Your task to perform on an android device: toggle pop-ups in chrome Image 0: 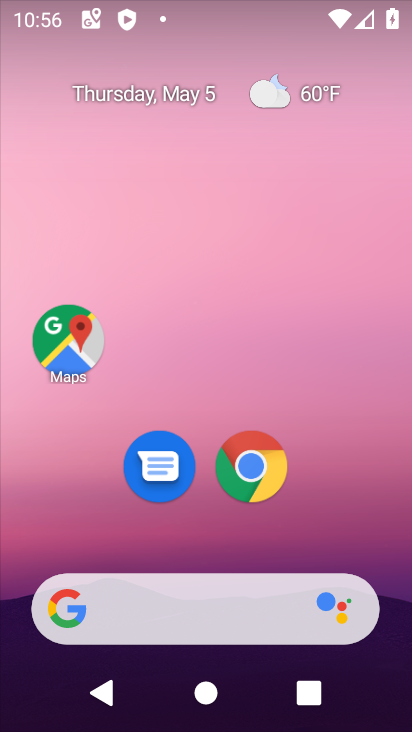
Step 0: click (252, 472)
Your task to perform on an android device: toggle pop-ups in chrome Image 1: 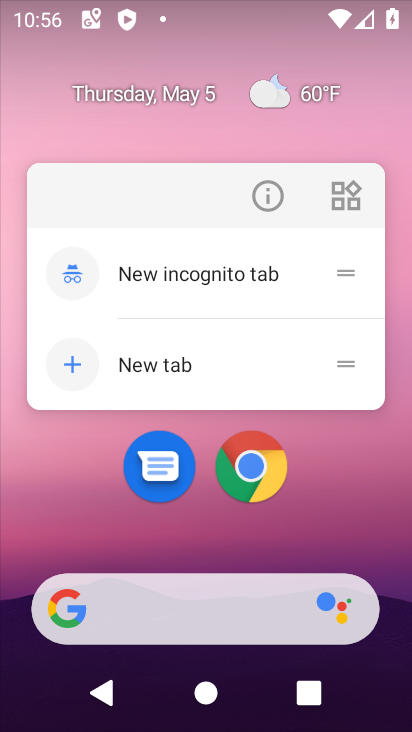
Step 1: click (252, 472)
Your task to perform on an android device: toggle pop-ups in chrome Image 2: 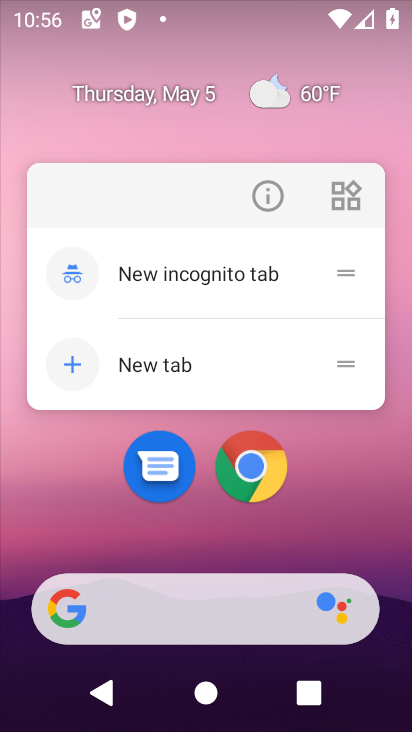
Step 2: click (261, 479)
Your task to perform on an android device: toggle pop-ups in chrome Image 3: 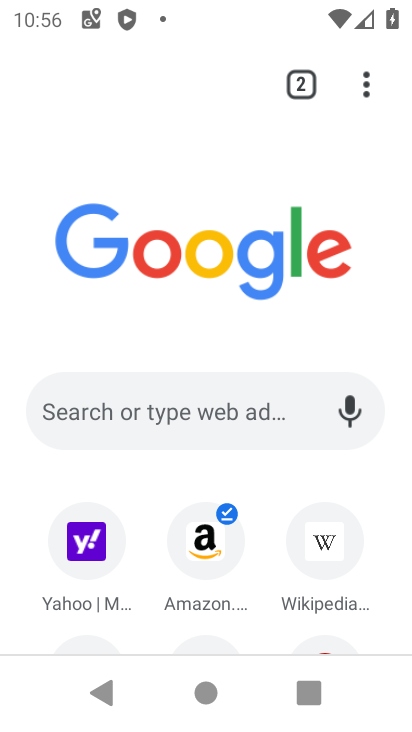
Step 3: click (365, 87)
Your task to perform on an android device: toggle pop-ups in chrome Image 4: 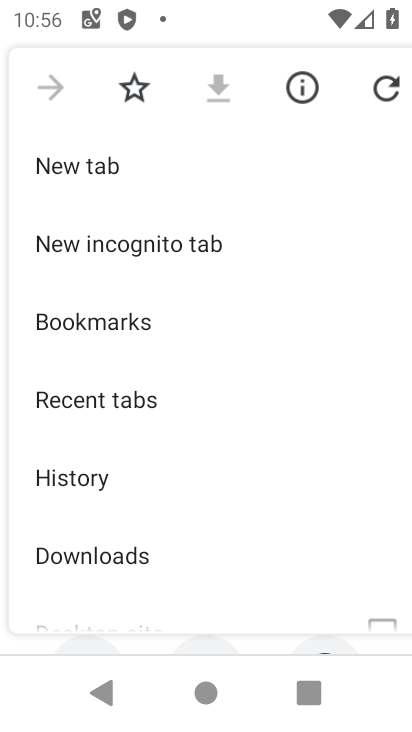
Step 4: drag from (121, 604) to (102, 341)
Your task to perform on an android device: toggle pop-ups in chrome Image 5: 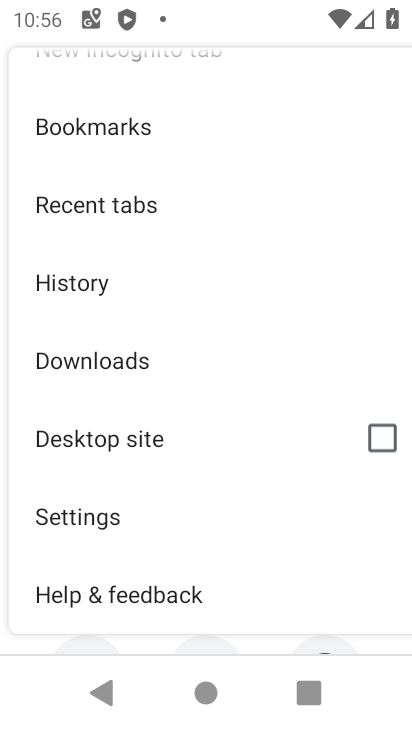
Step 5: click (108, 527)
Your task to perform on an android device: toggle pop-ups in chrome Image 6: 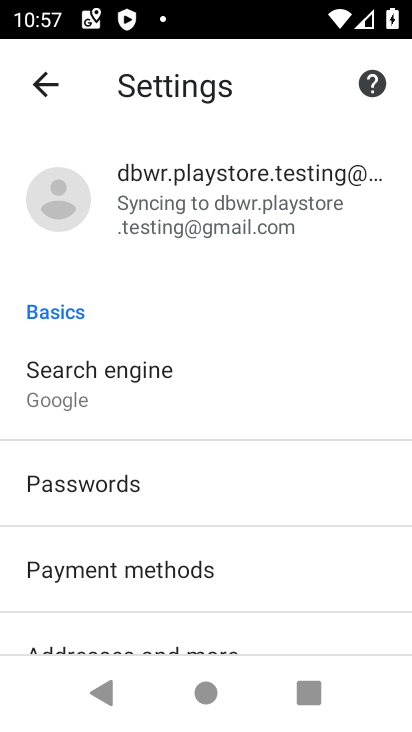
Step 6: drag from (101, 616) to (105, 335)
Your task to perform on an android device: toggle pop-ups in chrome Image 7: 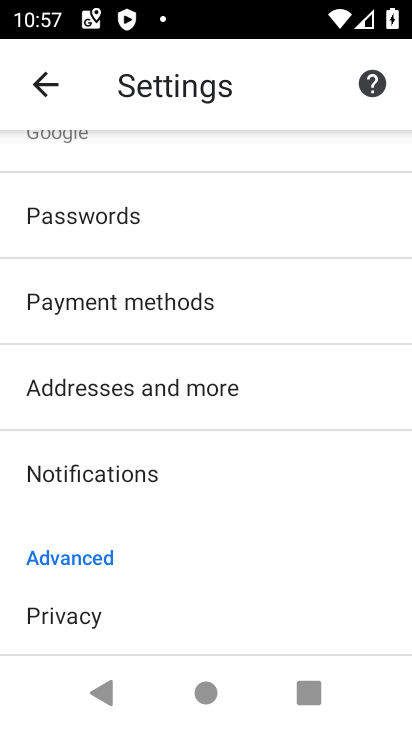
Step 7: drag from (130, 586) to (159, 387)
Your task to perform on an android device: toggle pop-ups in chrome Image 8: 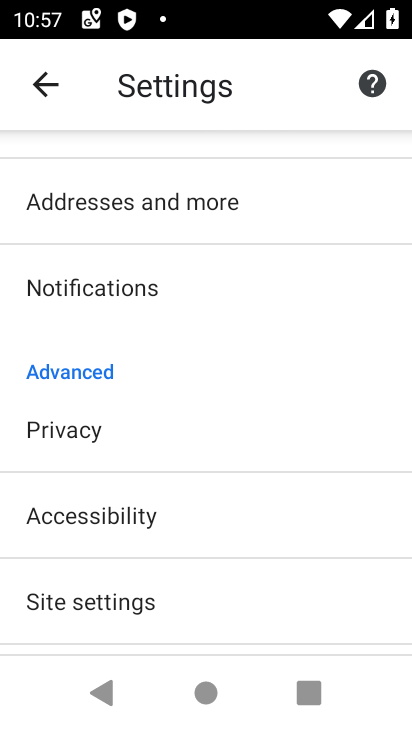
Step 8: drag from (145, 597) to (166, 447)
Your task to perform on an android device: toggle pop-ups in chrome Image 9: 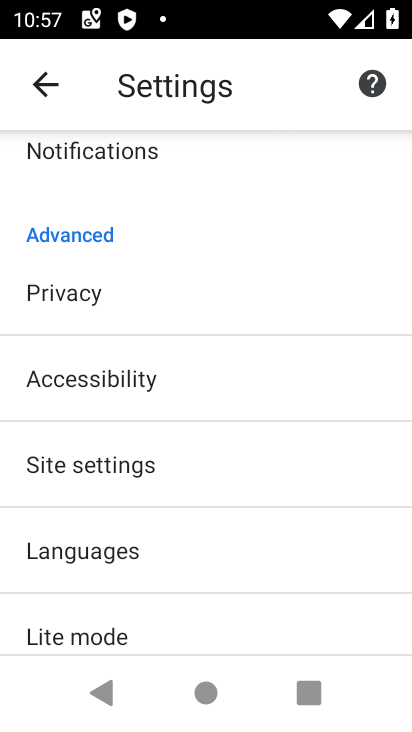
Step 9: click (82, 471)
Your task to perform on an android device: toggle pop-ups in chrome Image 10: 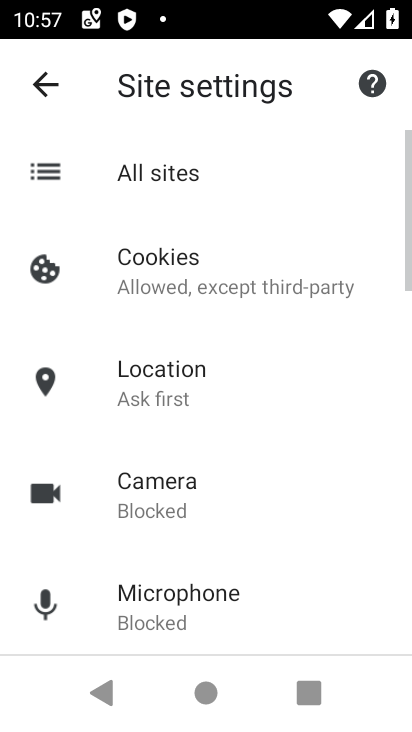
Step 10: drag from (166, 653) to (184, 286)
Your task to perform on an android device: toggle pop-ups in chrome Image 11: 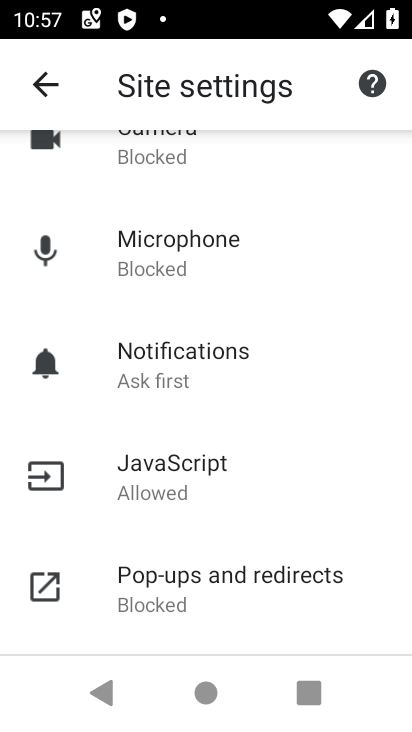
Step 11: click (166, 584)
Your task to perform on an android device: toggle pop-ups in chrome Image 12: 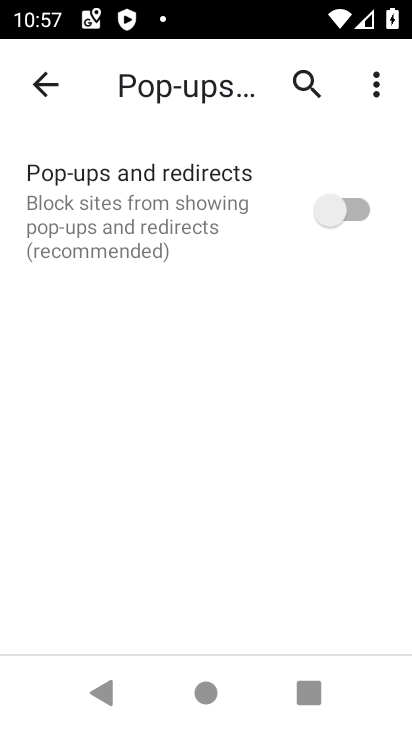
Step 12: click (358, 209)
Your task to perform on an android device: toggle pop-ups in chrome Image 13: 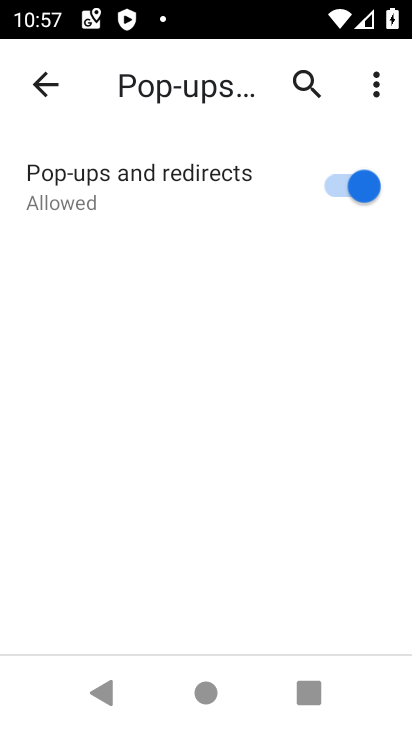
Step 13: task complete